Your task to perform on an android device: Open the calendar app, open the side menu, and click the "Day" option Image 0: 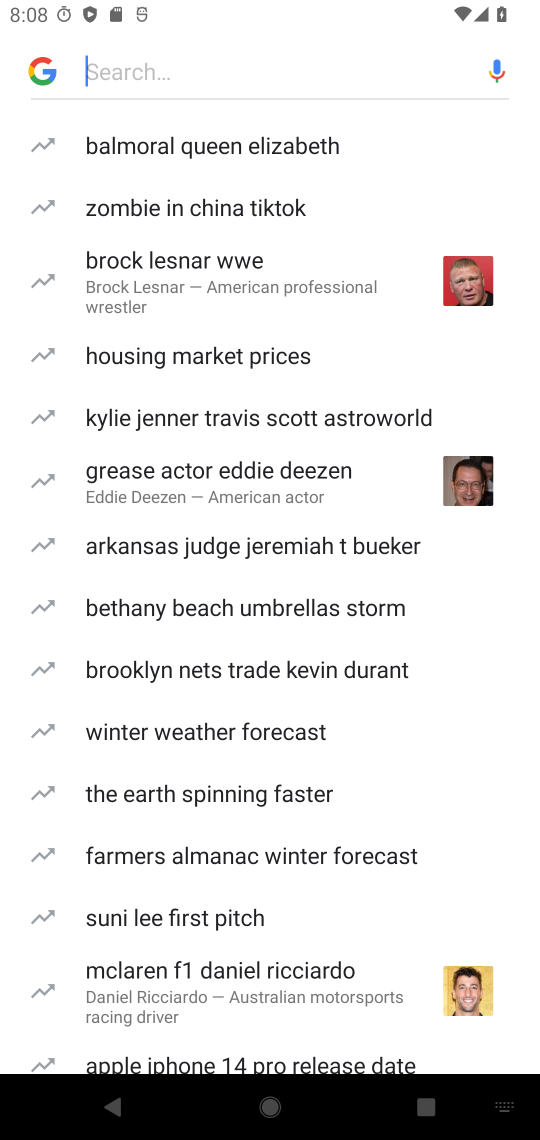
Step 0: press home button
Your task to perform on an android device: Open the calendar app, open the side menu, and click the "Day" option Image 1: 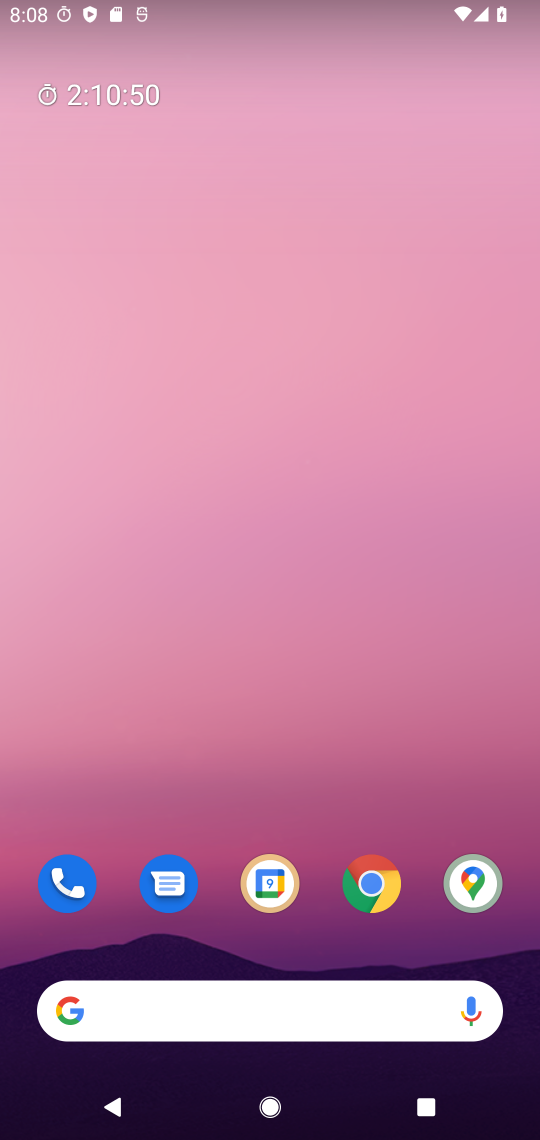
Step 1: drag from (264, 780) to (266, 279)
Your task to perform on an android device: Open the calendar app, open the side menu, and click the "Day" option Image 2: 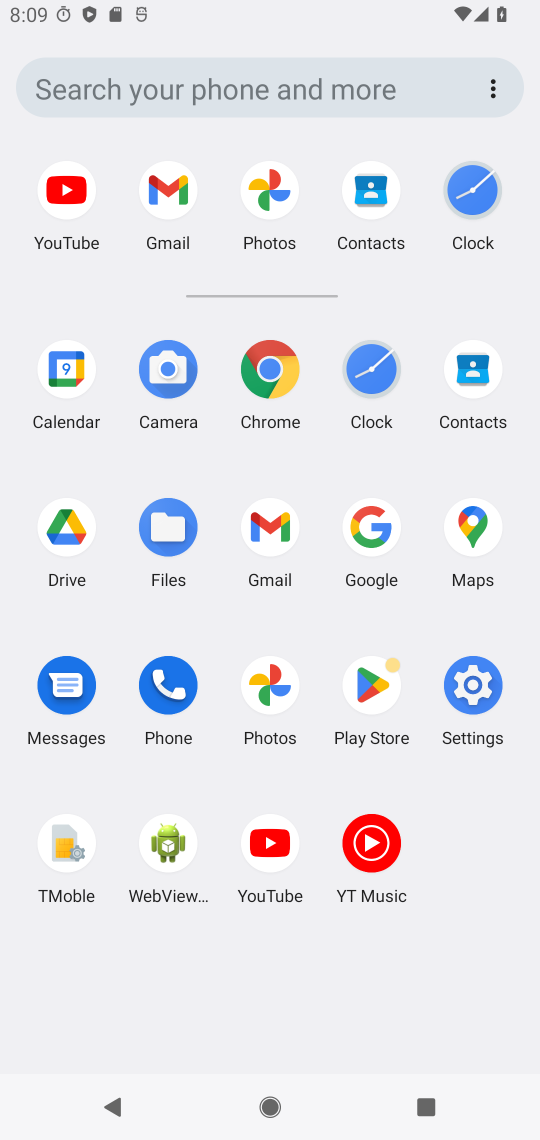
Step 2: click (50, 386)
Your task to perform on an android device: Open the calendar app, open the side menu, and click the "Day" option Image 3: 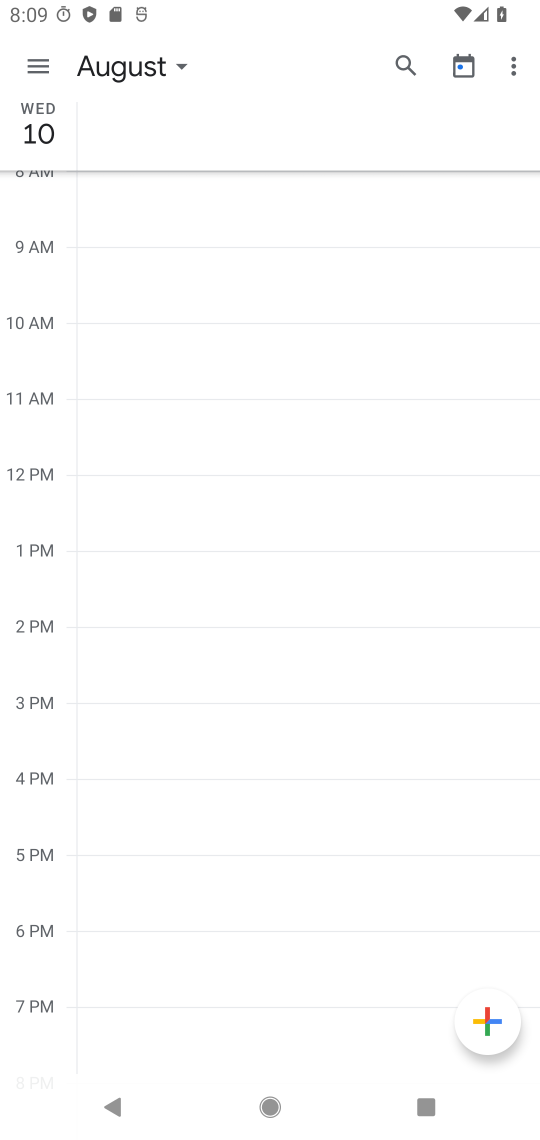
Step 3: click (47, 61)
Your task to perform on an android device: Open the calendar app, open the side menu, and click the "Day" option Image 4: 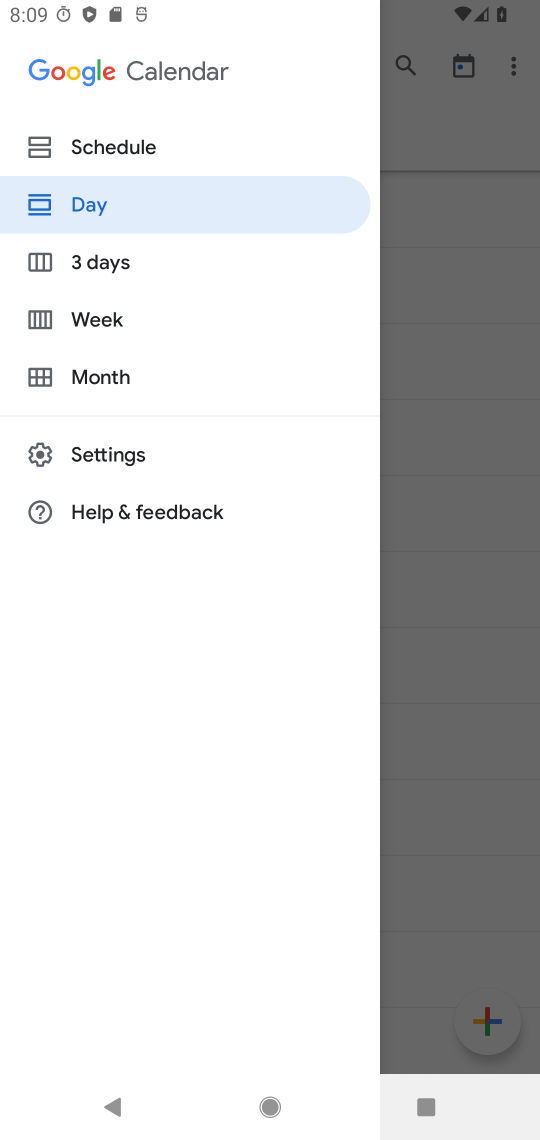
Step 4: task complete